Your task to perform on an android device: Check the weather Image 0: 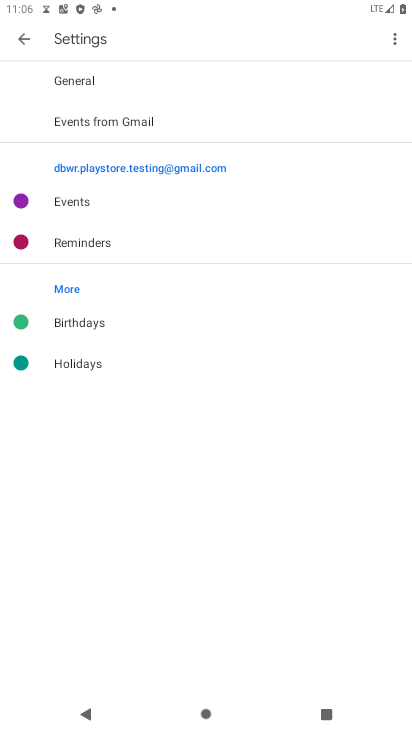
Step 0: press home button
Your task to perform on an android device: Check the weather Image 1: 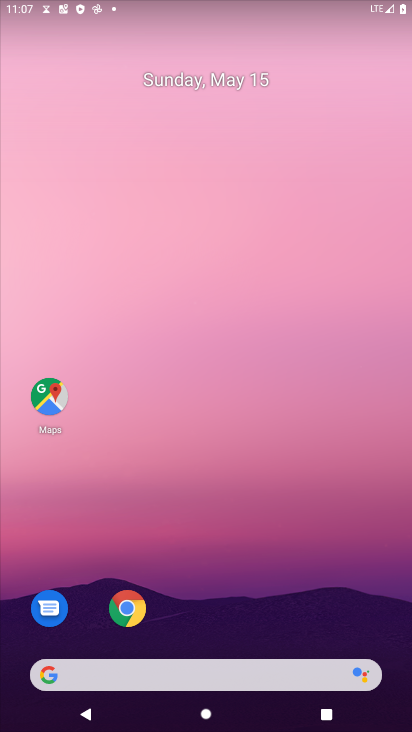
Step 1: drag from (287, 594) to (263, 75)
Your task to perform on an android device: Check the weather Image 2: 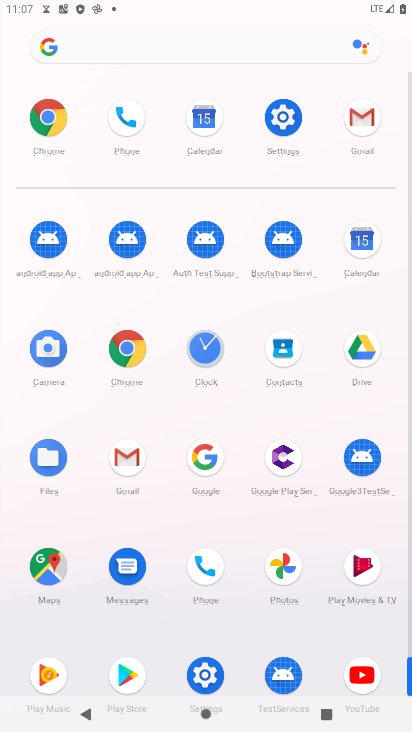
Step 2: click (44, 38)
Your task to perform on an android device: Check the weather Image 3: 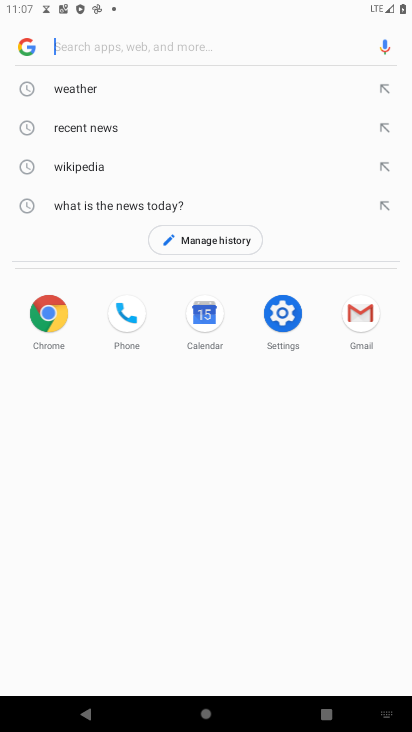
Step 3: click (36, 56)
Your task to perform on an android device: Check the weather Image 4: 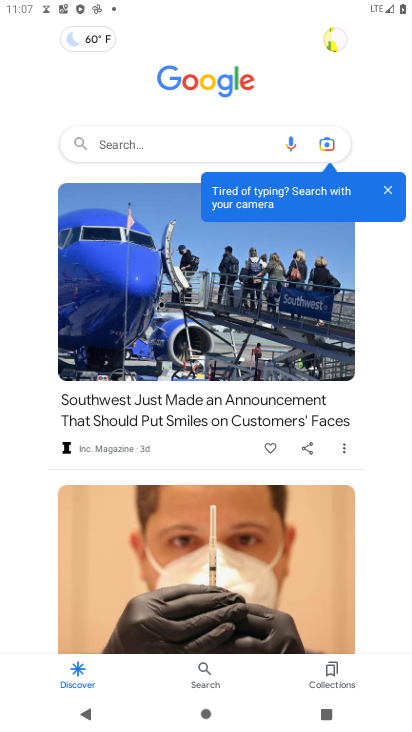
Step 4: click (91, 34)
Your task to perform on an android device: Check the weather Image 5: 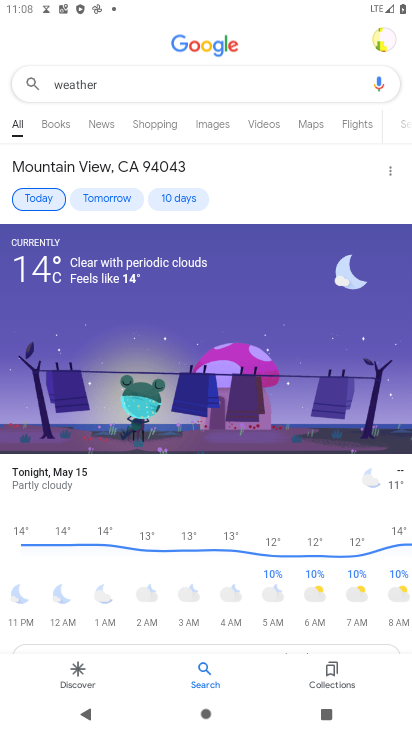
Step 5: task complete